Your task to perform on an android device: install app "Yahoo Mail" Image 0: 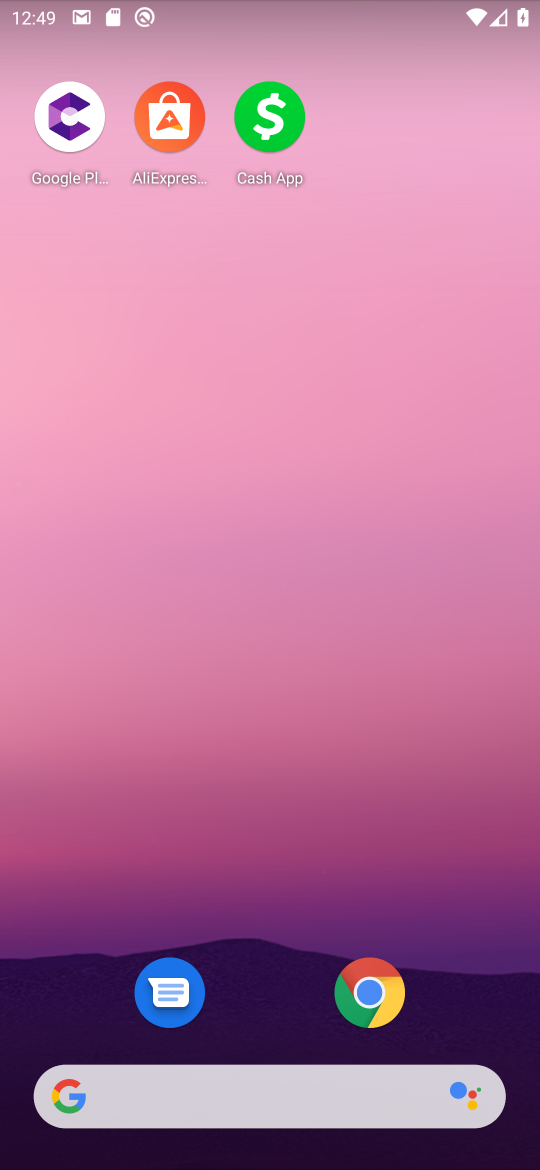
Step 0: drag from (295, 1004) to (362, 386)
Your task to perform on an android device: install app "Yahoo Mail" Image 1: 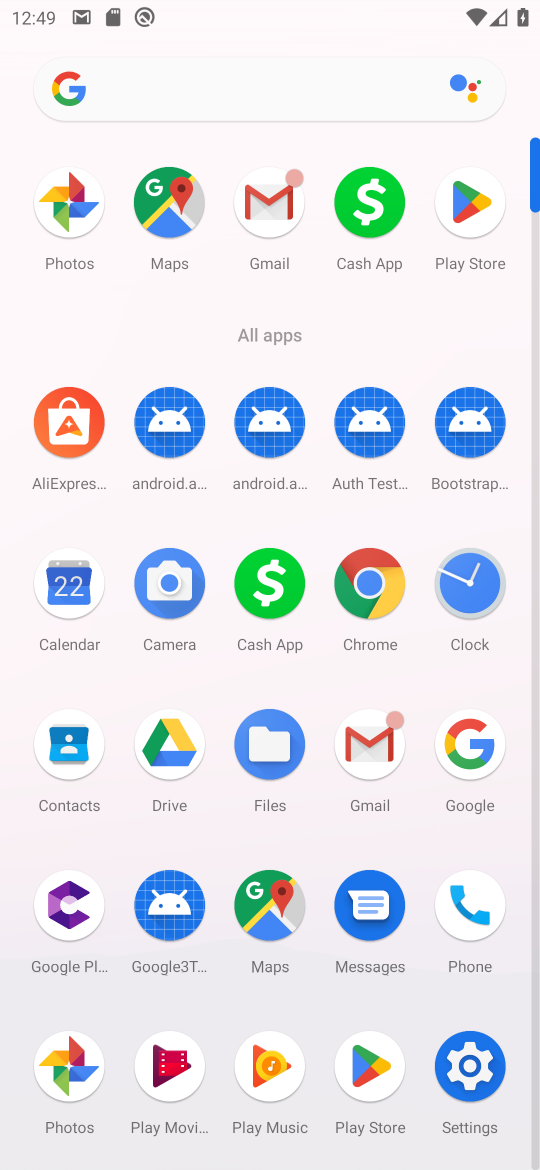
Step 1: click (457, 218)
Your task to perform on an android device: install app "Yahoo Mail" Image 2: 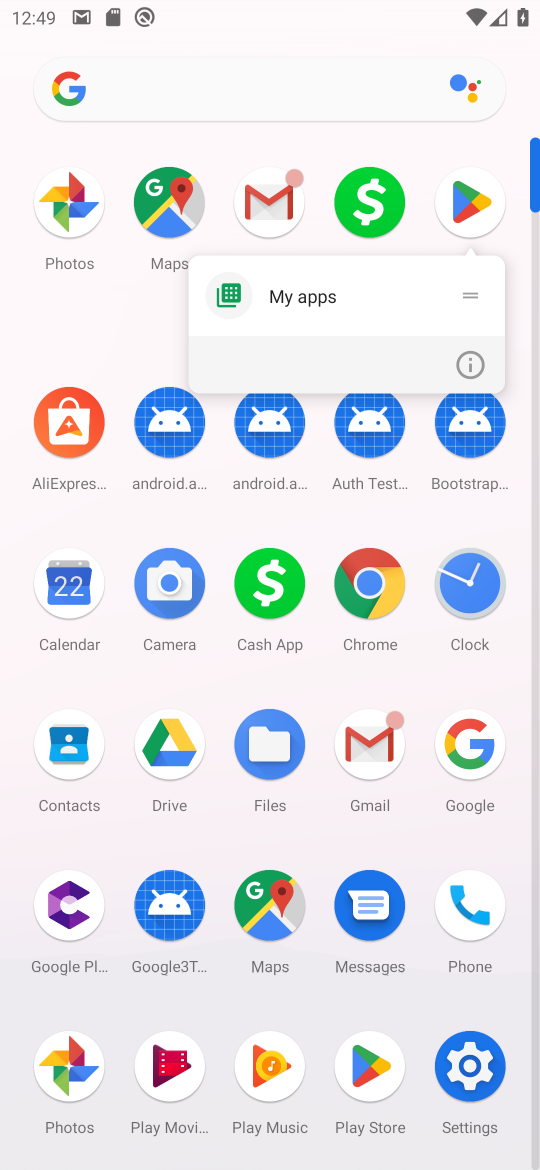
Step 2: click (466, 216)
Your task to perform on an android device: install app "Yahoo Mail" Image 3: 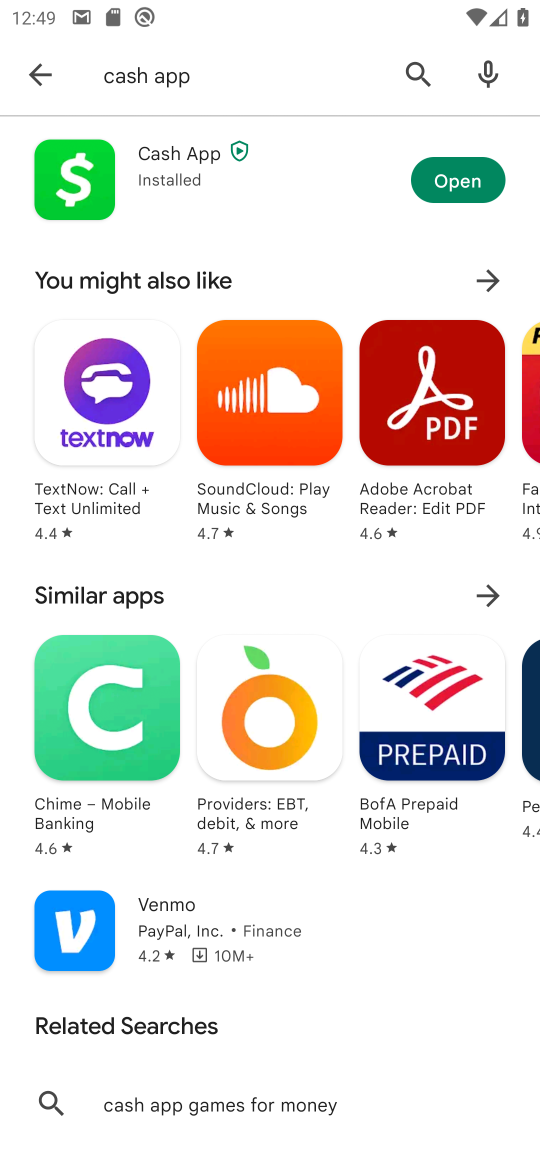
Step 3: click (406, 74)
Your task to perform on an android device: install app "Yahoo Mail" Image 4: 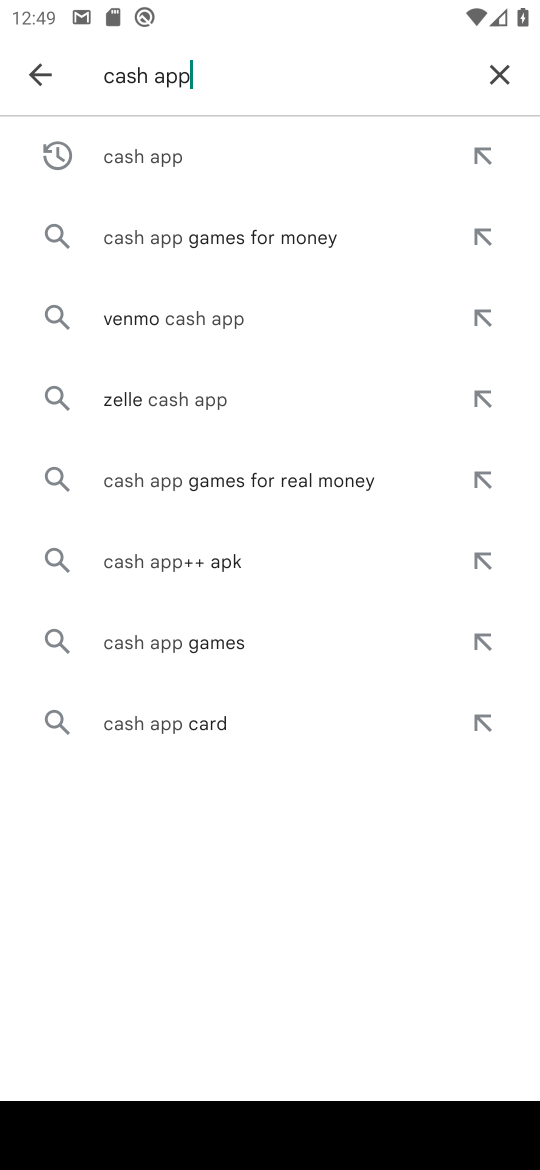
Step 4: click (511, 78)
Your task to perform on an android device: install app "Yahoo Mail" Image 5: 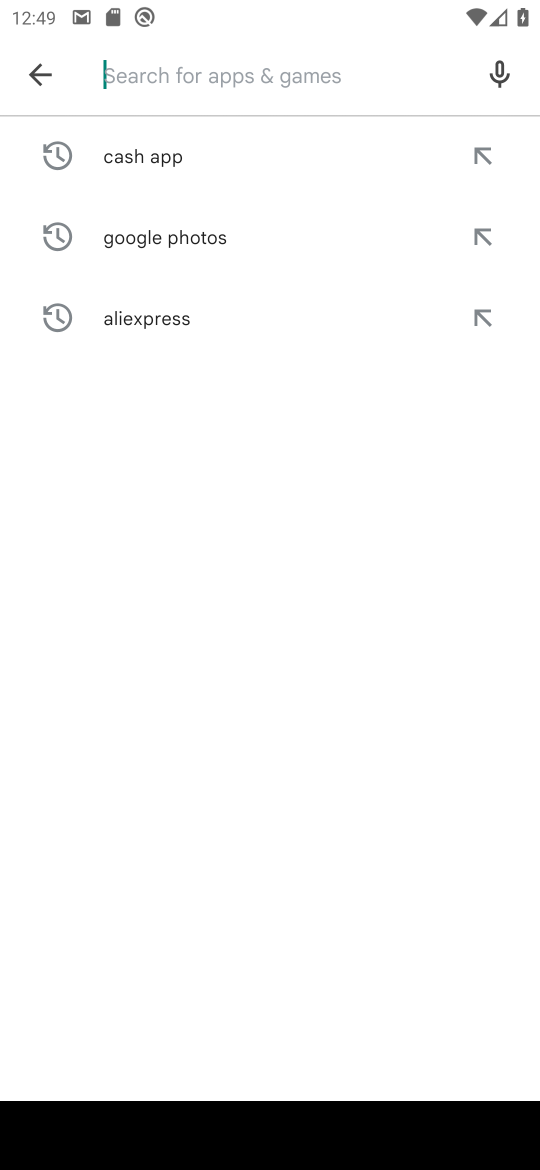
Step 5: type "Yahoo Mail"
Your task to perform on an android device: install app "Yahoo Mail" Image 6: 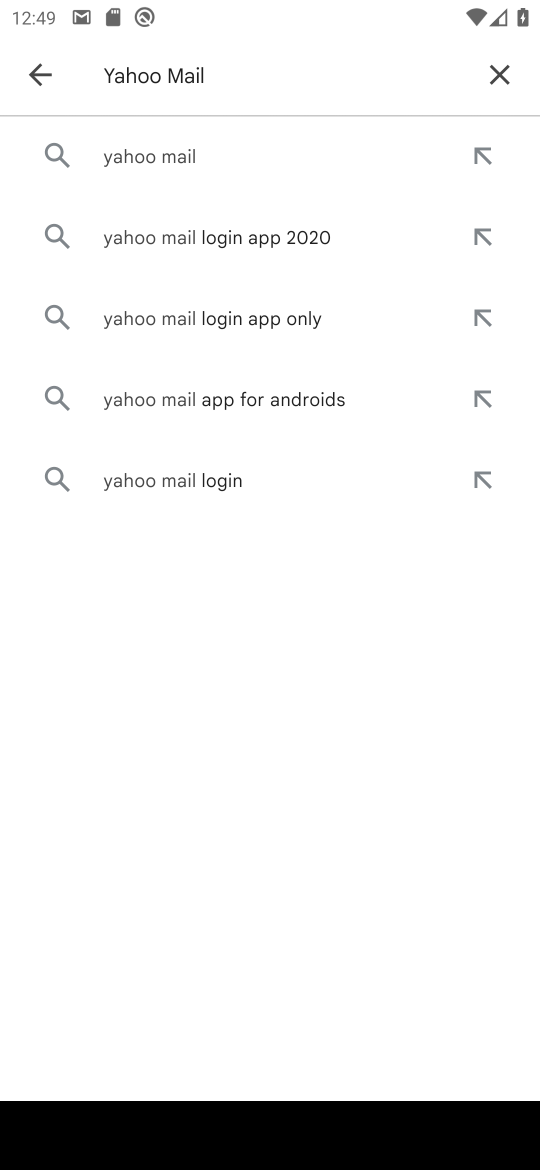
Step 6: click (134, 157)
Your task to perform on an android device: install app "Yahoo Mail" Image 7: 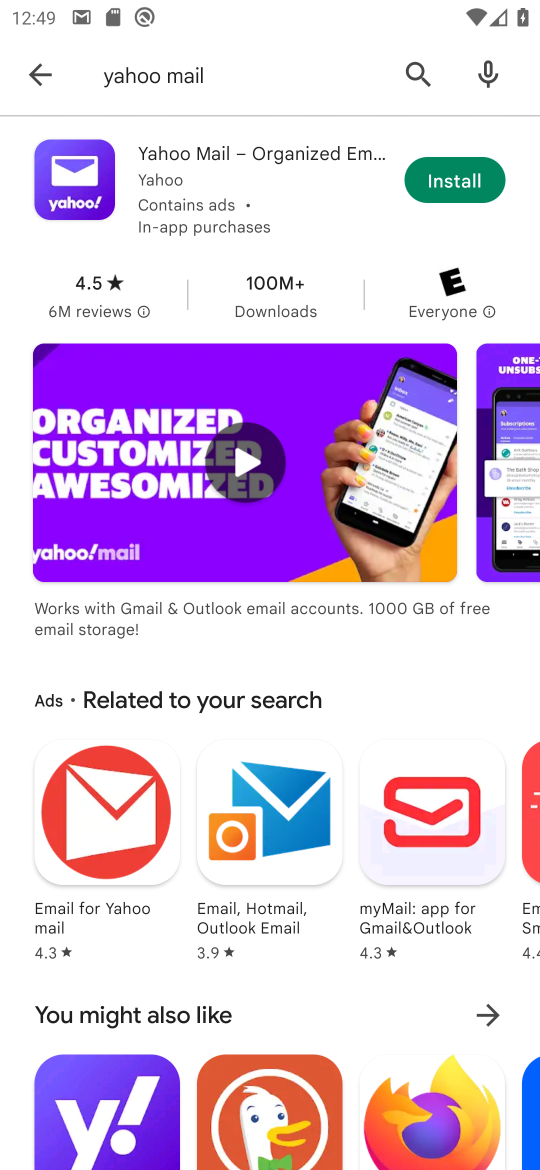
Step 7: click (470, 187)
Your task to perform on an android device: install app "Yahoo Mail" Image 8: 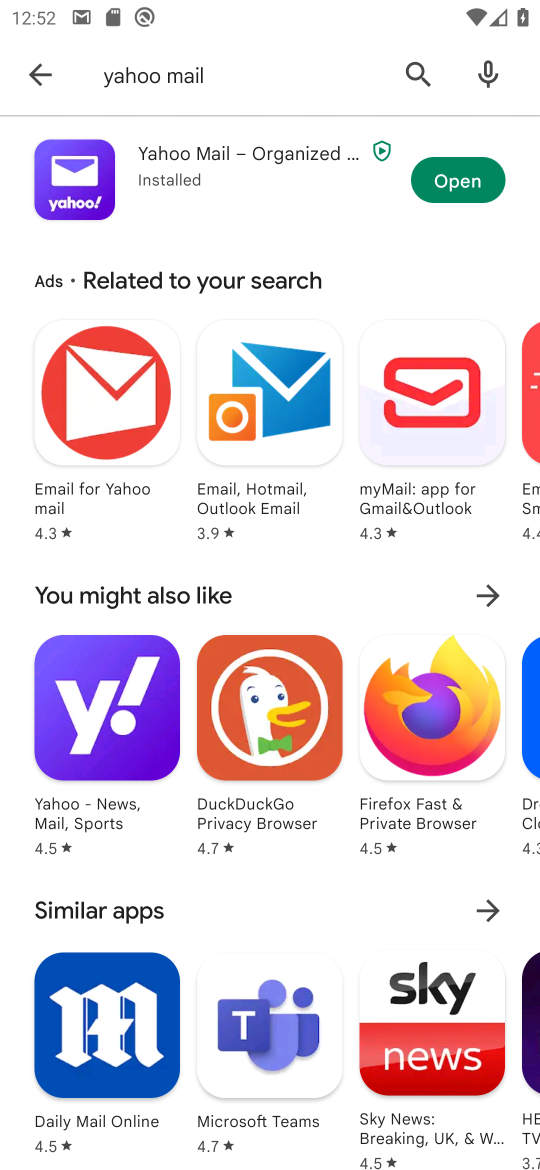
Step 8: click (452, 174)
Your task to perform on an android device: install app "Yahoo Mail" Image 9: 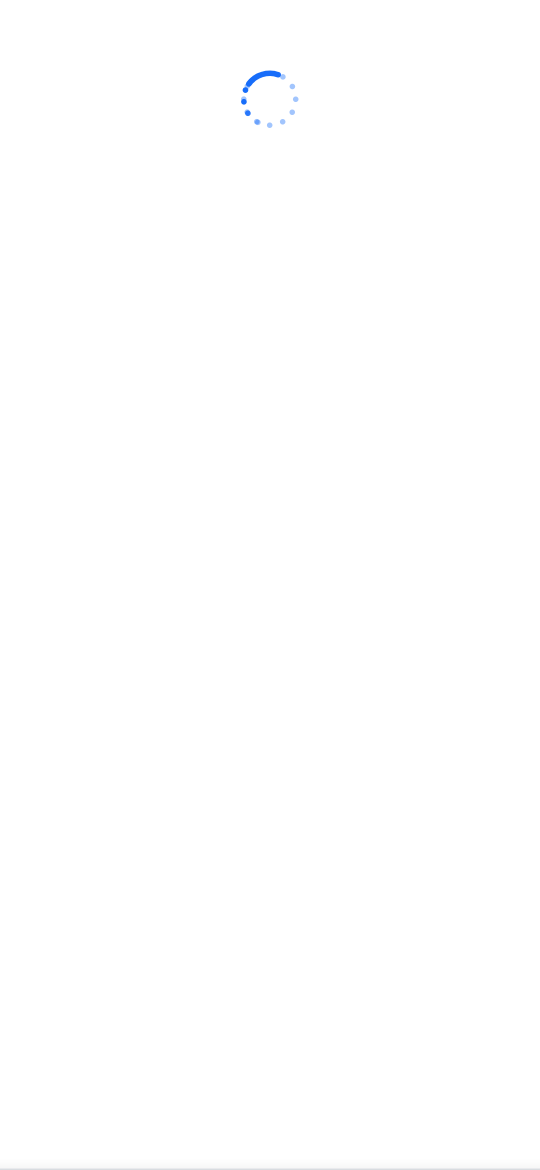
Step 9: task complete